Your task to perform on an android device: turn off picture-in-picture Image 0: 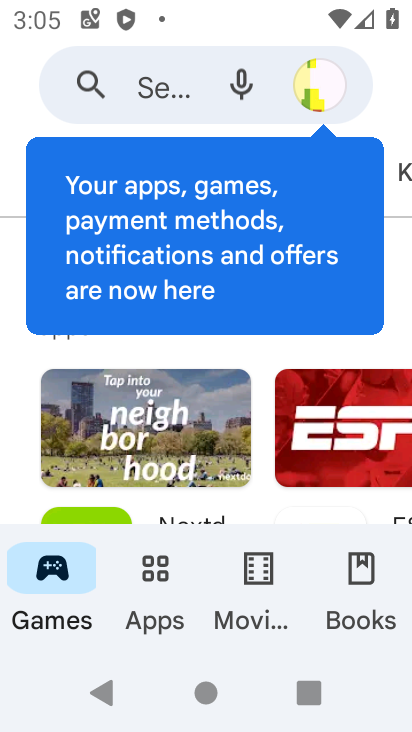
Step 0: press home button
Your task to perform on an android device: turn off picture-in-picture Image 1: 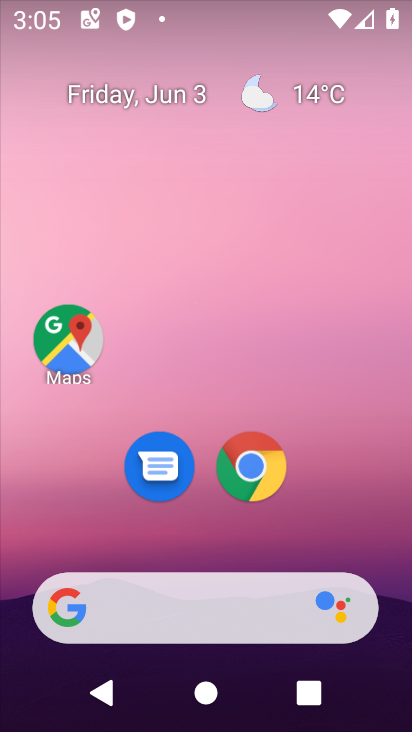
Step 1: drag from (327, 482) to (335, 17)
Your task to perform on an android device: turn off picture-in-picture Image 2: 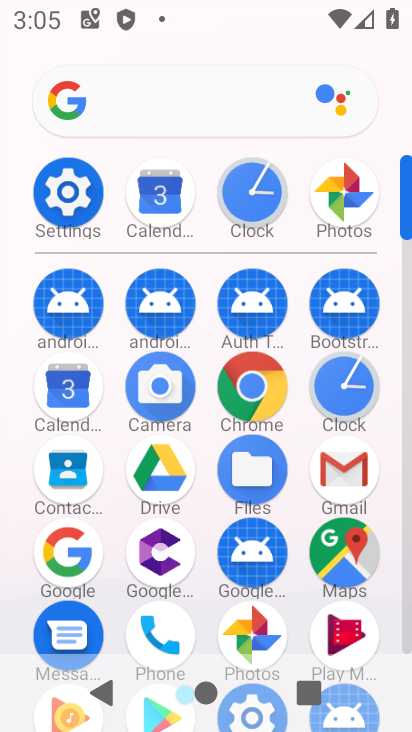
Step 2: click (317, 189)
Your task to perform on an android device: turn off picture-in-picture Image 3: 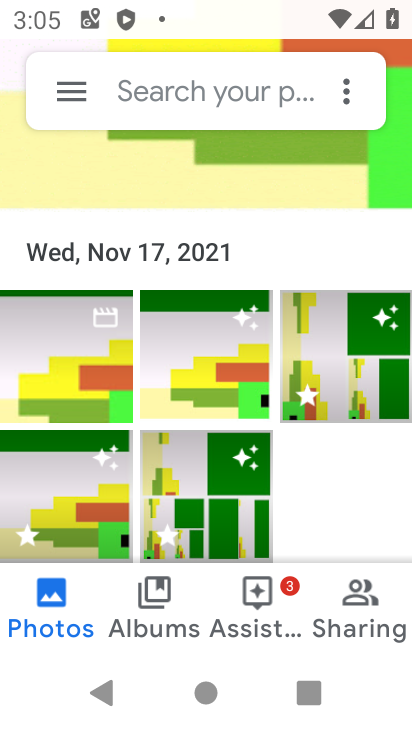
Step 3: click (71, 82)
Your task to perform on an android device: turn off picture-in-picture Image 4: 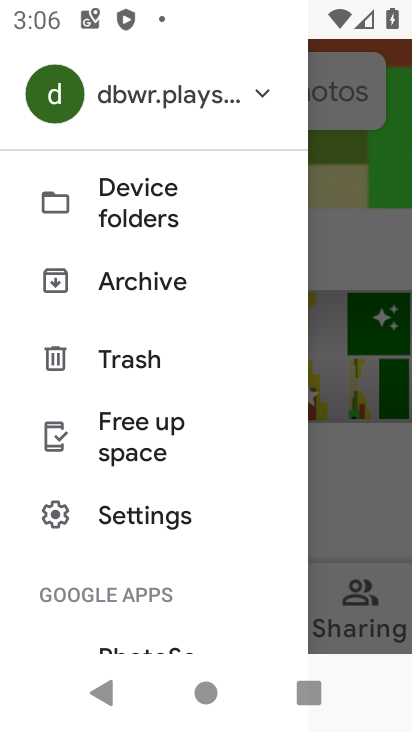
Step 4: drag from (137, 522) to (213, 108)
Your task to perform on an android device: turn off picture-in-picture Image 5: 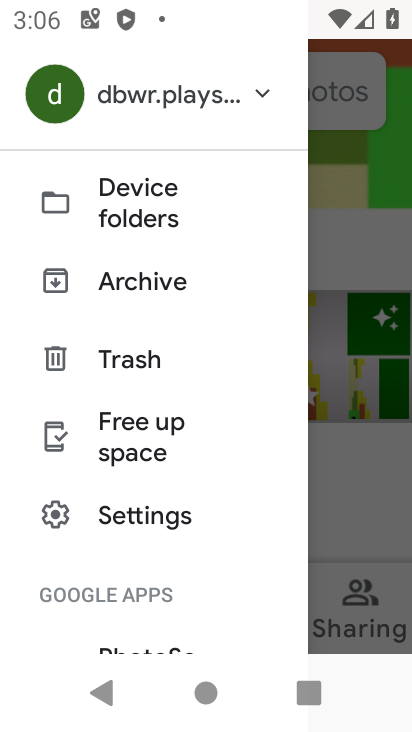
Step 5: click (177, 515)
Your task to perform on an android device: turn off picture-in-picture Image 6: 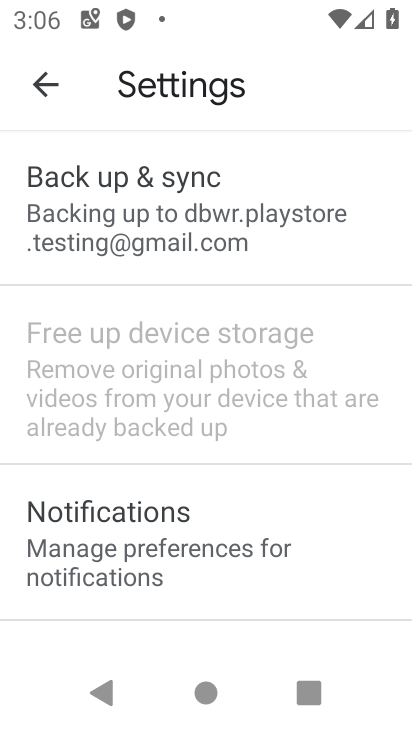
Step 6: drag from (214, 570) to (247, 215)
Your task to perform on an android device: turn off picture-in-picture Image 7: 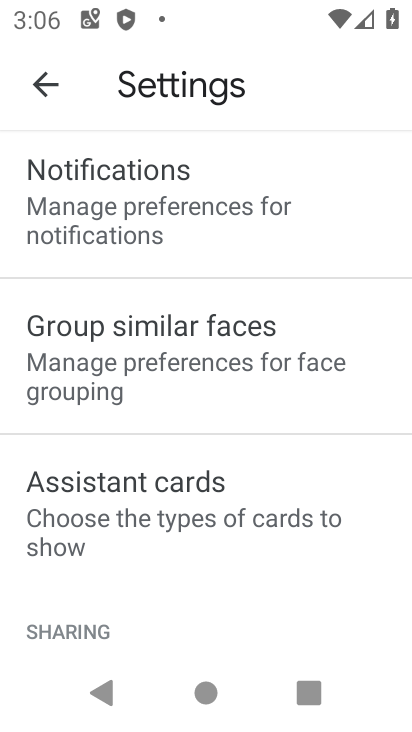
Step 7: drag from (288, 552) to (317, 278)
Your task to perform on an android device: turn off picture-in-picture Image 8: 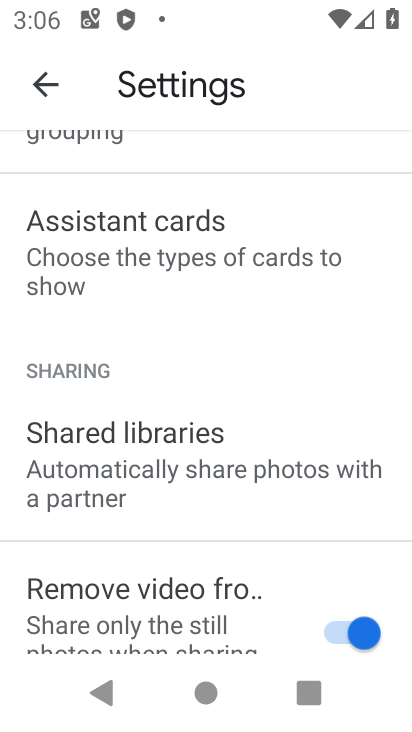
Step 8: drag from (232, 527) to (254, 177)
Your task to perform on an android device: turn off picture-in-picture Image 9: 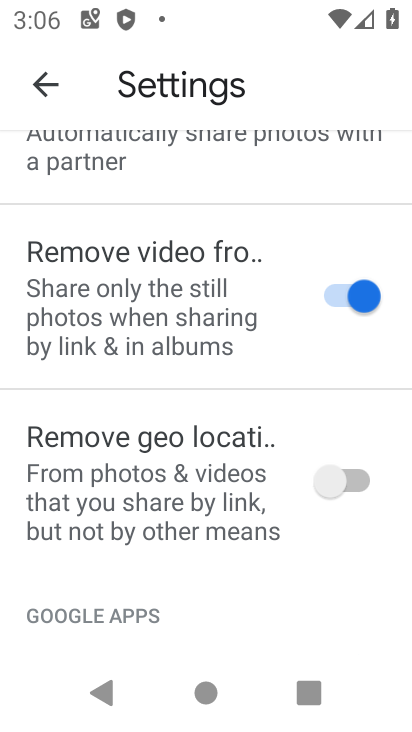
Step 9: drag from (187, 542) to (235, 115)
Your task to perform on an android device: turn off picture-in-picture Image 10: 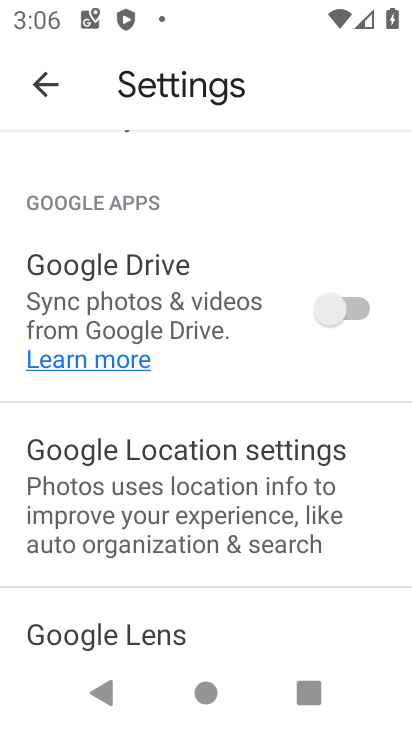
Step 10: drag from (201, 457) to (283, 87)
Your task to perform on an android device: turn off picture-in-picture Image 11: 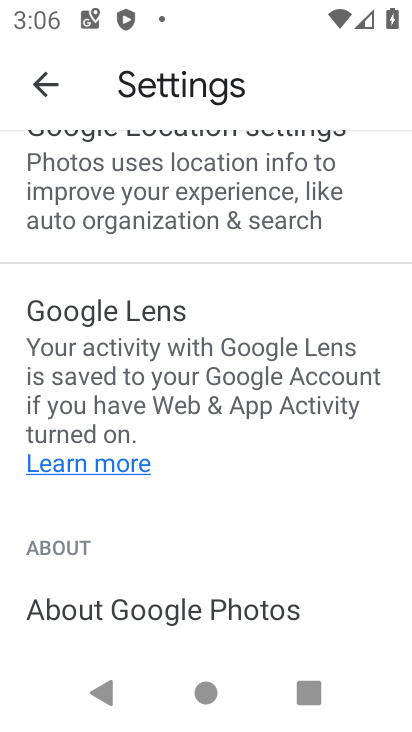
Step 11: drag from (245, 506) to (310, 179)
Your task to perform on an android device: turn off picture-in-picture Image 12: 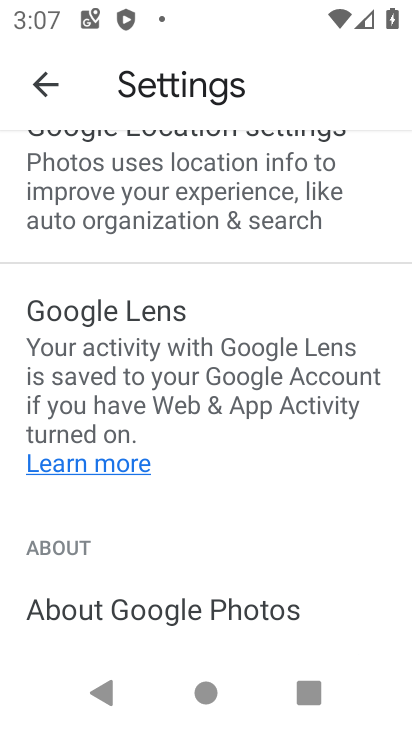
Step 12: drag from (231, 521) to (272, 237)
Your task to perform on an android device: turn off picture-in-picture Image 13: 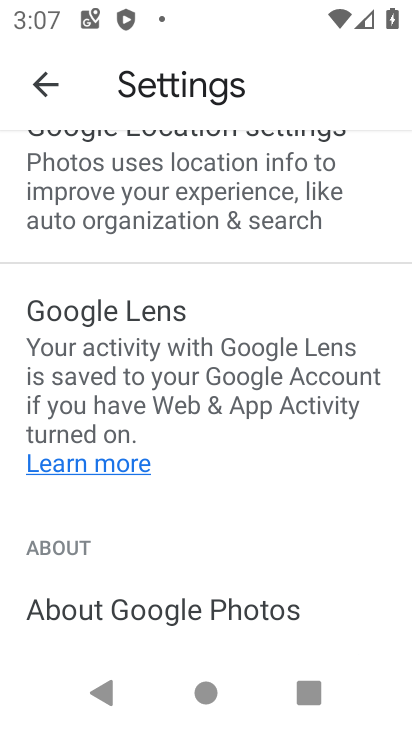
Step 13: click (218, 606)
Your task to perform on an android device: turn off picture-in-picture Image 14: 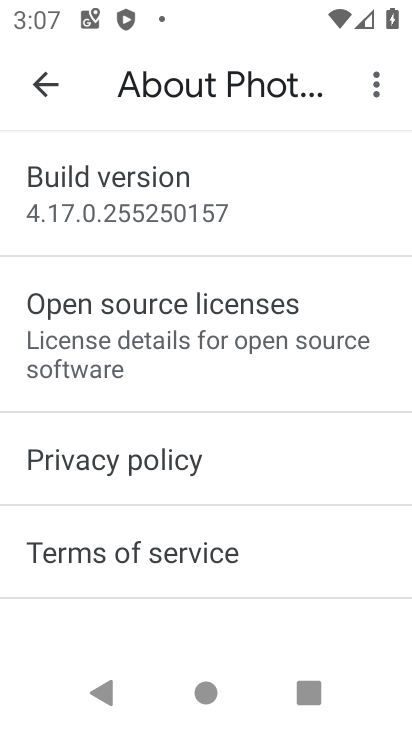
Step 14: drag from (210, 467) to (285, 206)
Your task to perform on an android device: turn off picture-in-picture Image 15: 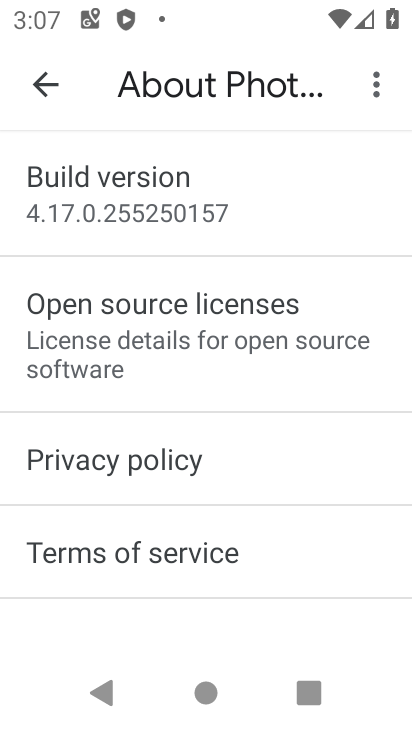
Step 15: drag from (301, 172) to (246, 456)
Your task to perform on an android device: turn off picture-in-picture Image 16: 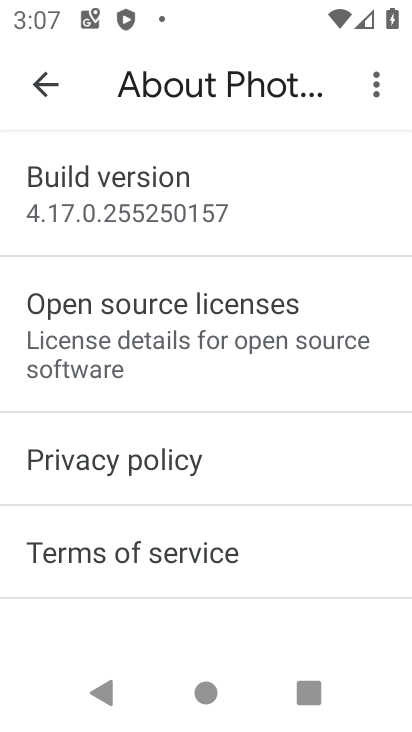
Step 16: click (71, 72)
Your task to perform on an android device: turn off picture-in-picture Image 17: 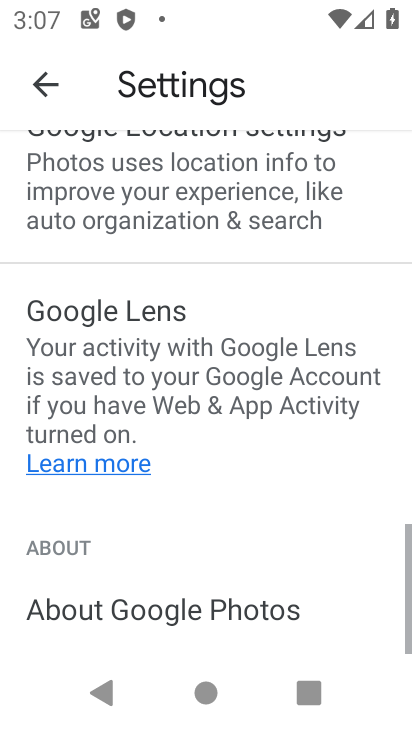
Step 17: task complete